Your task to perform on an android device: Open wifi settings Image 0: 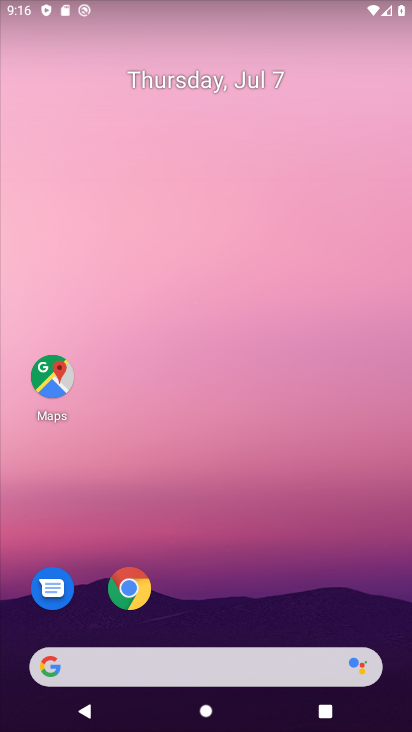
Step 0: drag from (267, 695) to (170, 366)
Your task to perform on an android device: Open wifi settings Image 1: 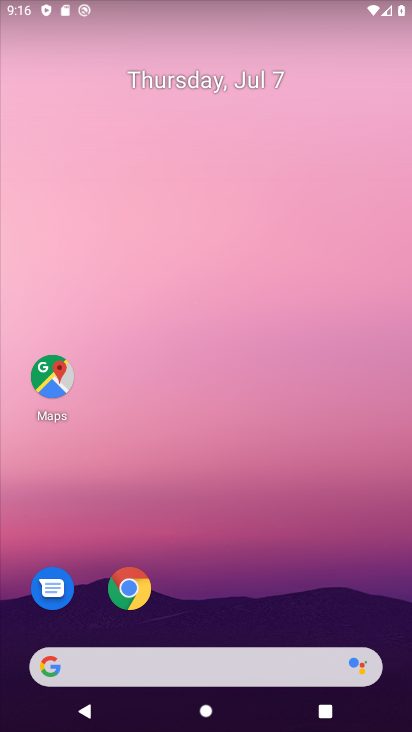
Step 1: drag from (241, 654) to (174, 326)
Your task to perform on an android device: Open wifi settings Image 2: 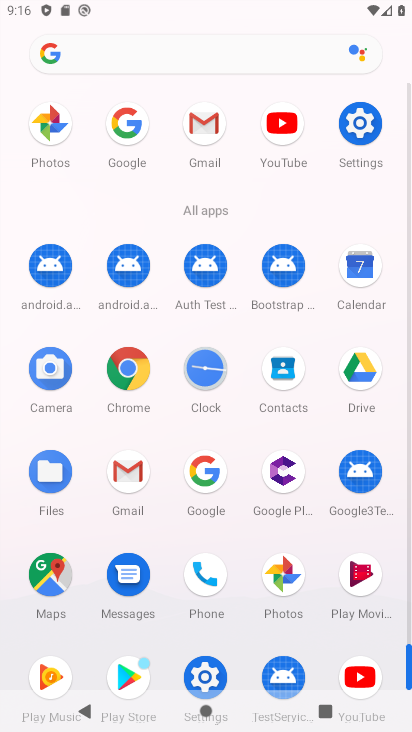
Step 2: click (344, 130)
Your task to perform on an android device: Open wifi settings Image 3: 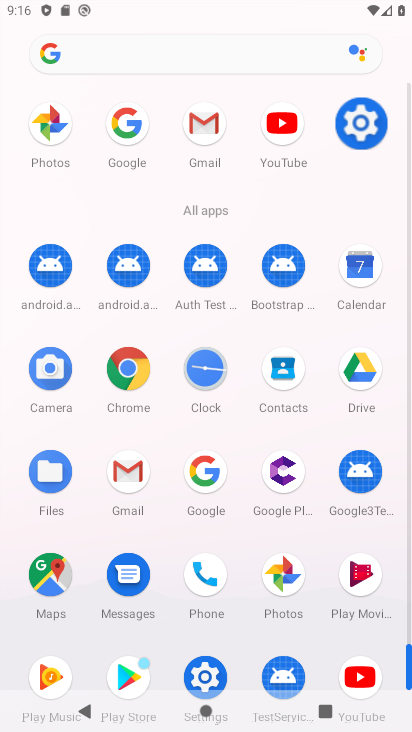
Step 3: click (352, 129)
Your task to perform on an android device: Open wifi settings Image 4: 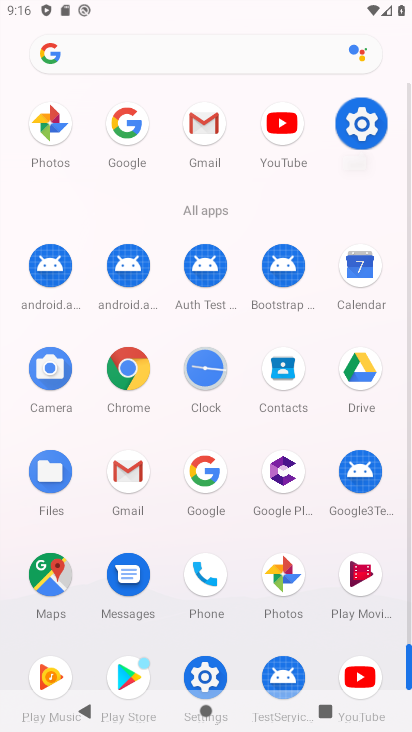
Step 4: click (352, 129)
Your task to perform on an android device: Open wifi settings Image 5: 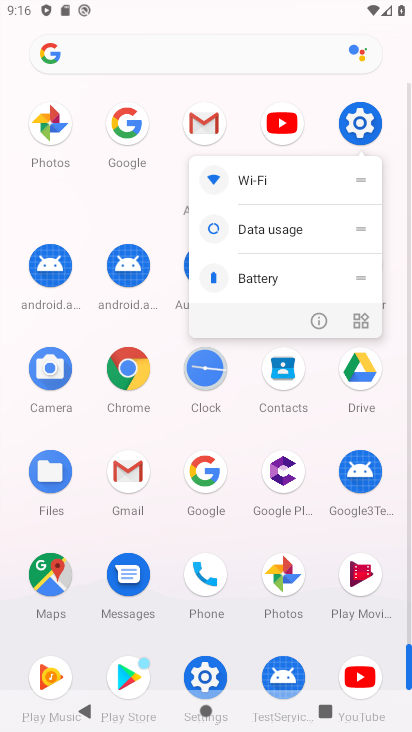
Step 5: click (340, 124)
Your task to perform on an android device: Open wifi settings Image 6: 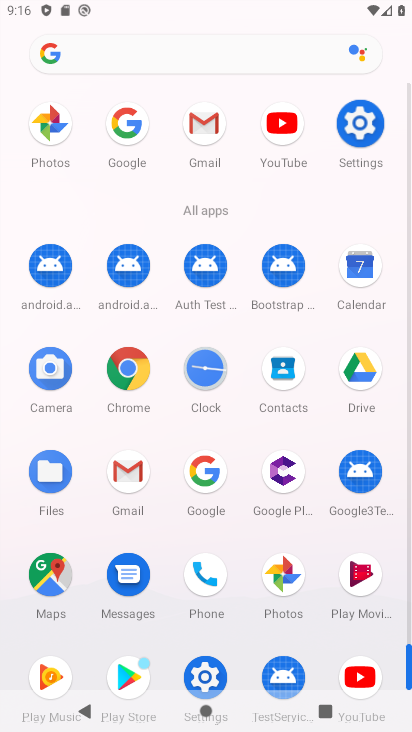
Step 6: click (351, 118)
Your task to perform on an android device: Open wifi settings Image 7: 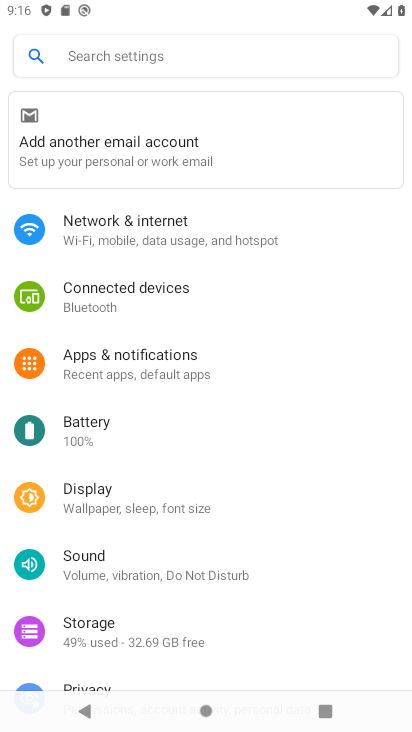
Step 7: click (115, 238)
Your task to perform on an android device: Open wifi settings Image 8: 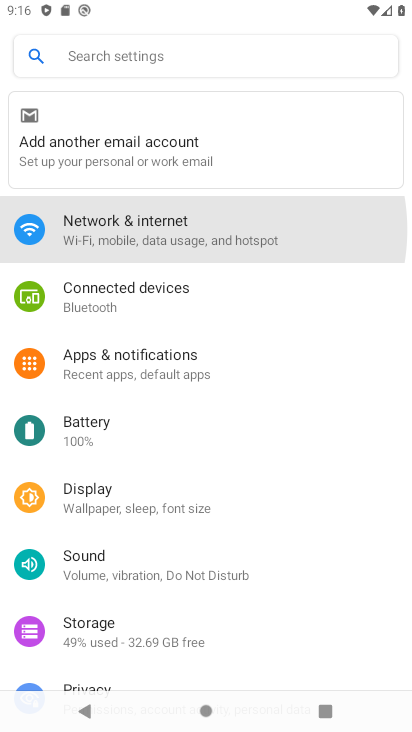
Step 8: click (116, 237)
Your task to perform on an android device: Open wifi settings Image 9: 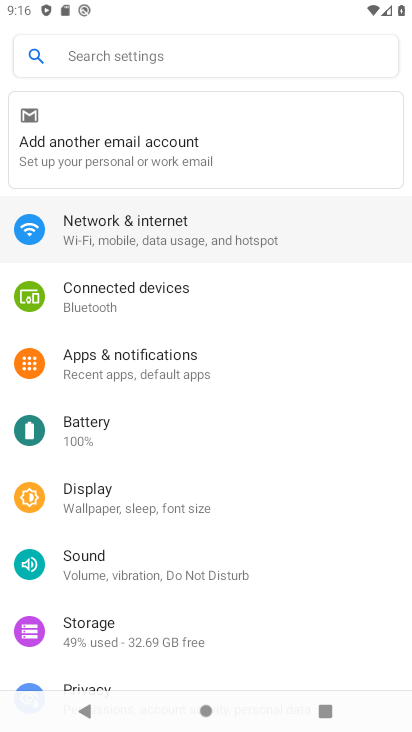
Step 9: click (118, 237)
Your task to perform on an android device: Open wifi settings Image 10: 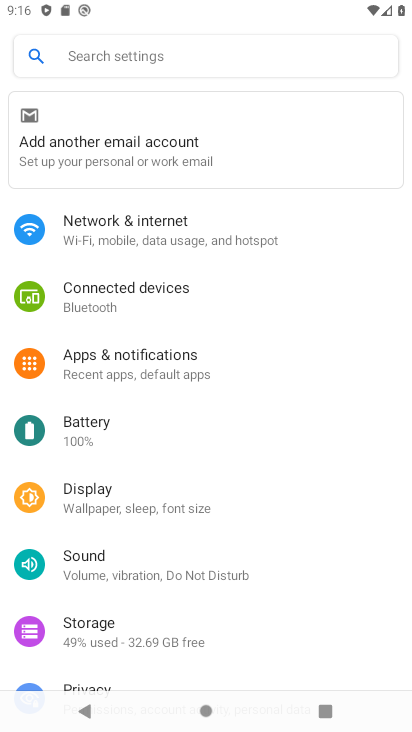
Step 10: click (118, 237)
Your task to perform on an android device: Open wifi settings Image 11: 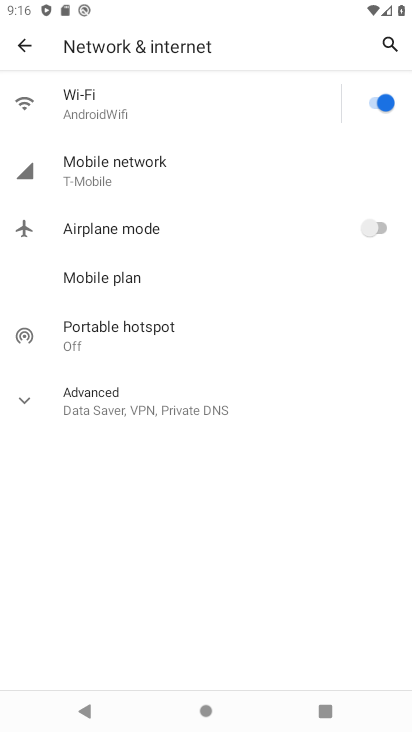
Step 11: click (91, 103)
Your task to perform on an android device: Open wifi settings Image 12: 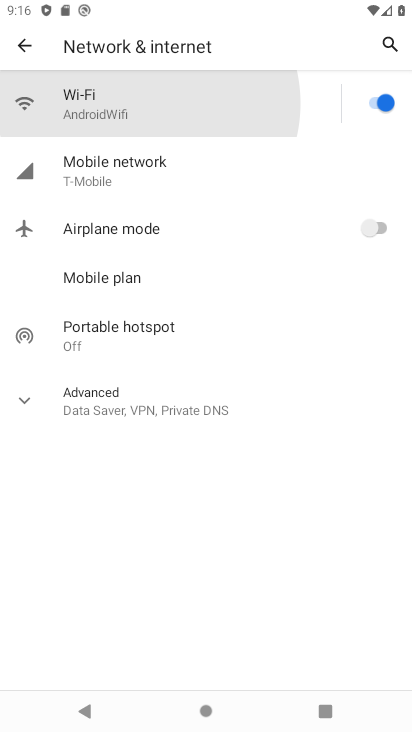
Step 12: click (95, 101)
Your task to perform on an android device: Open wifi settings Image 13: 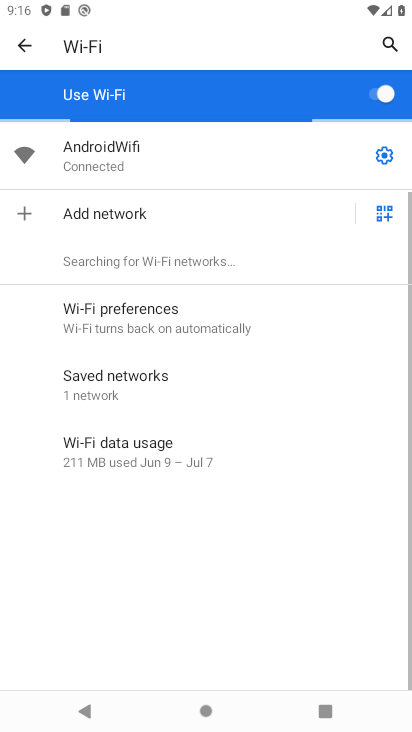
Step 13: click (95, 101)
Your task to perform on an android device: Open wifi settings Image 14: 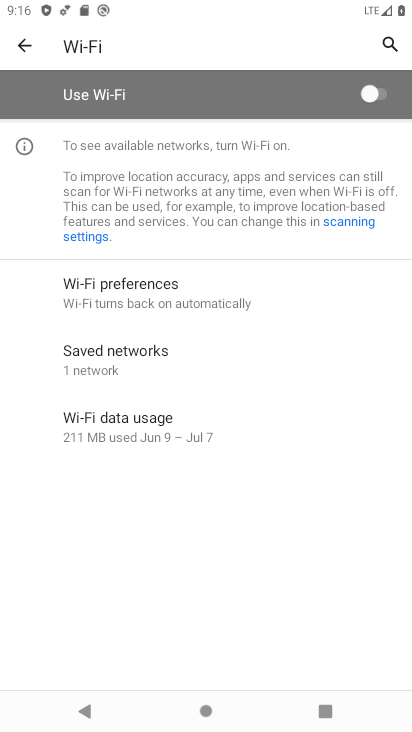
Step 14: click (371, 91)
Your task to perform on an android device: Open wifi settings Image 15: 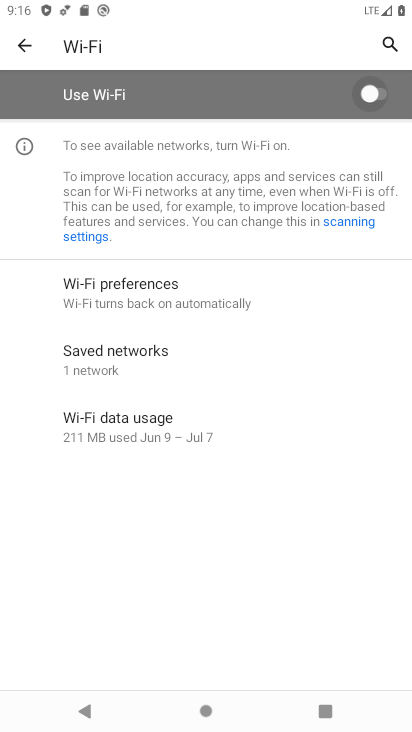
Step 15: click (370, 92)
Your task to perform on an android device: Open wifi settings Image 16: 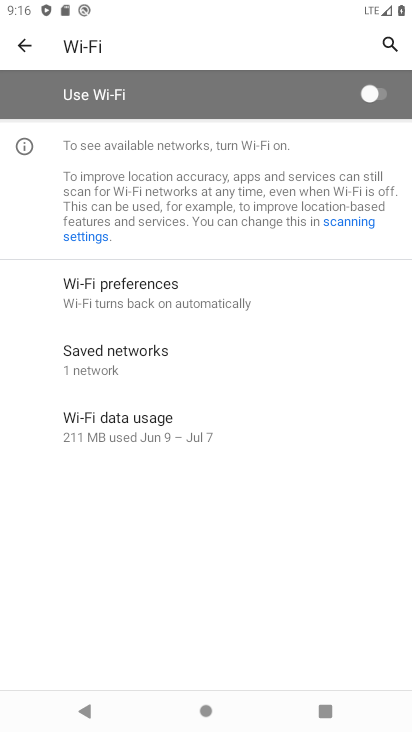
Step 16: task complete